Your task to perform on an android device: turn pop-ups on in chrome Image 0: 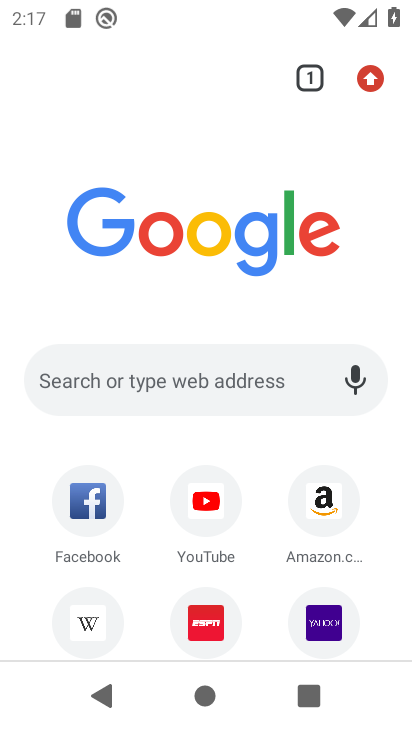
Step 0: press home button
Your task to perform on an android device: turn pop-ups on in chrome Image 1: 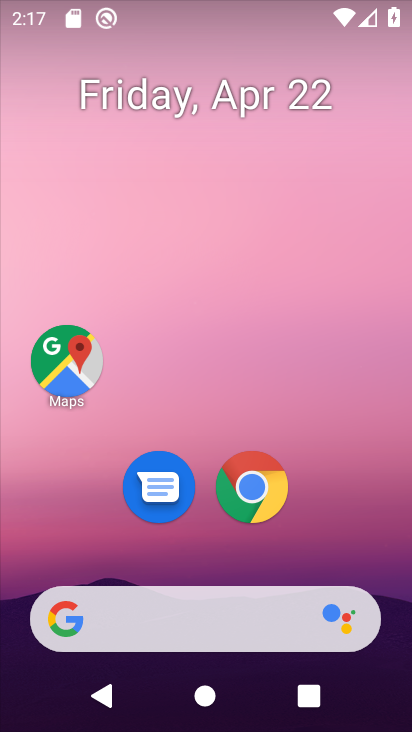
Step 1: click (279, 487)
Your task to perform on an android device: turn pop-ups on in chrome Image 2: 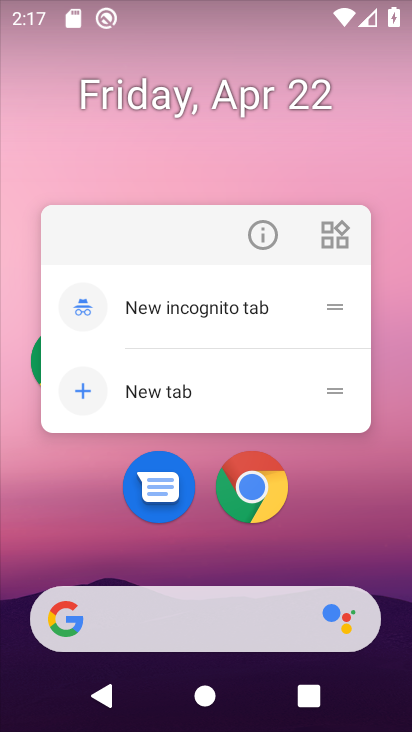
Step 2: click (264, 240)
Your task to perform on an android device: turn pop-ups on in chrome Image 3: 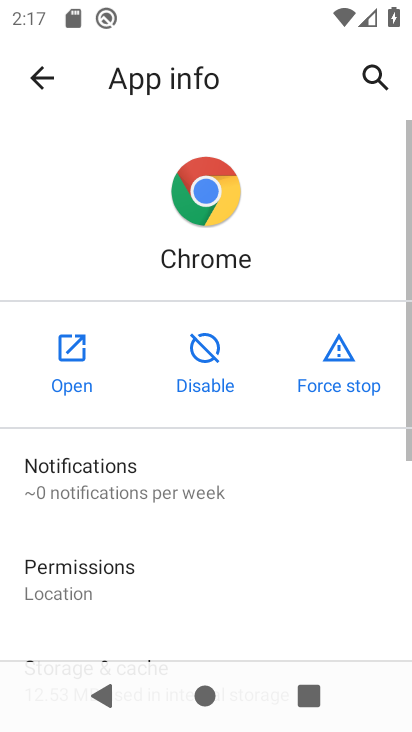
Step 3: click (87, 357)
Your task to perform on an android device: turn pop-ups on in chrome Image 4: 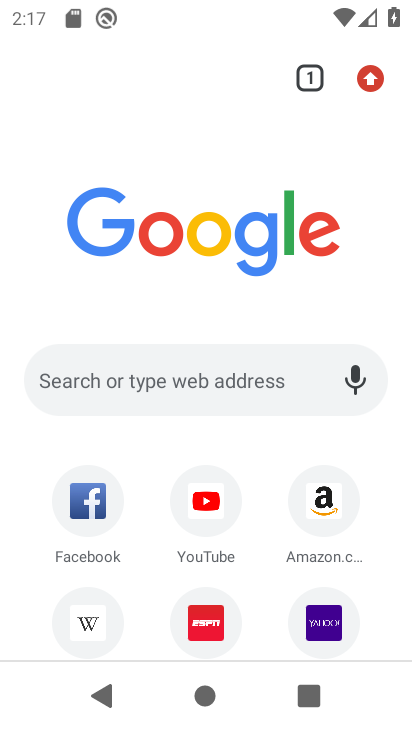
Step 4: click (389, 78)
Your task to perform on an android device: turn pop-ups on in chrome Image 5: 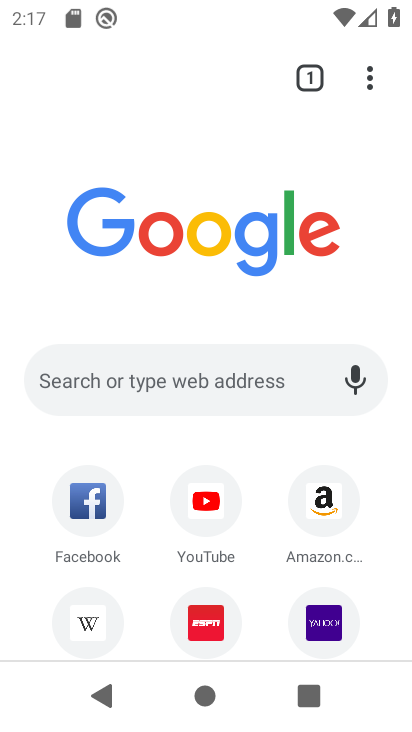
Step 5: click (366, 87)
Your task to perform on an android device: turn pop-ups on in chrome Image 6: 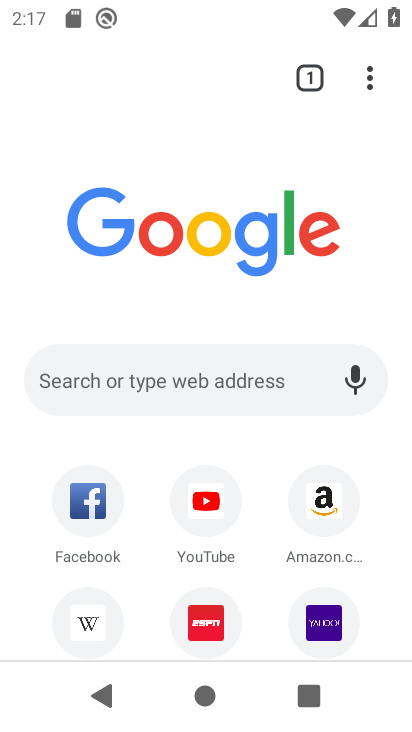
Step 6: click (361, 81)
Your task to perform on an android device: turn pop-ups on in chrome Image 7: 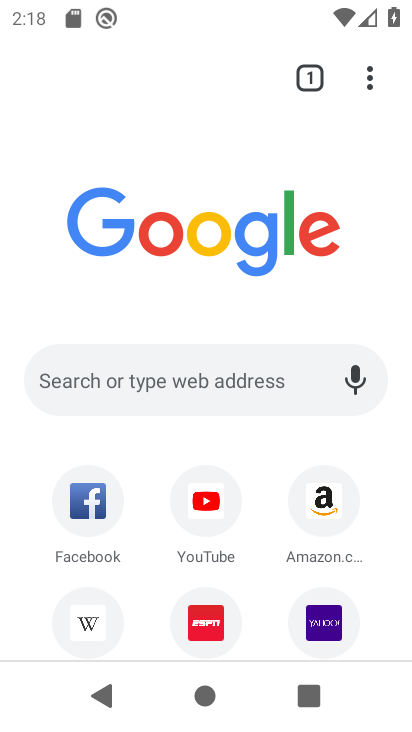
Step 7: click (359, 89)
Your task to perform on an android device: turn pop-ups on in chrome Image 8: 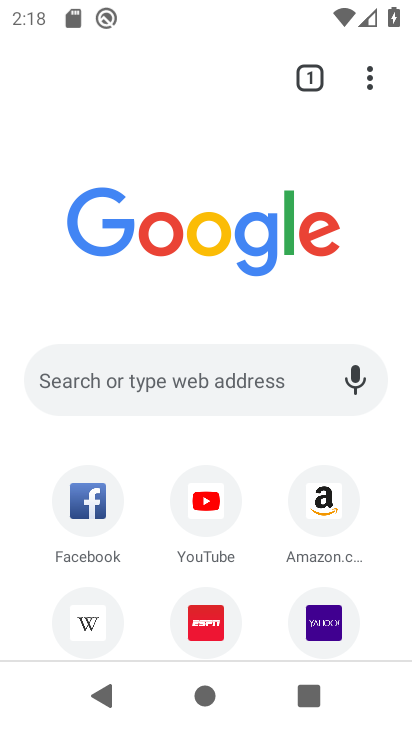
Step 8: click (373, 84)
Your task to perform on an android device: turn pop-ups on in chrome Image 9: 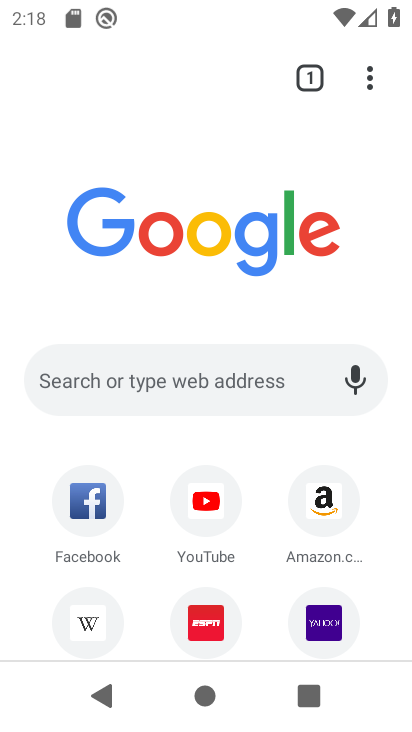
Step 9: click (313, 84)
Your task to perform on an android device: turn pop-ups on in chrome Image 10: 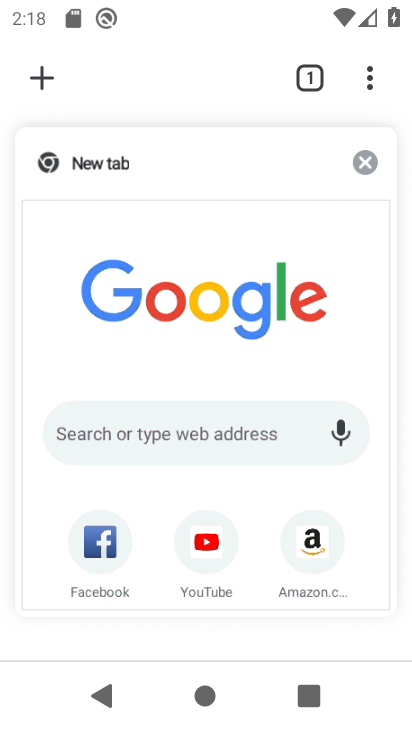
Step 10: click (362, 83)
Your task to perform on an android device: turn pop-ups on in chrome Image 11: 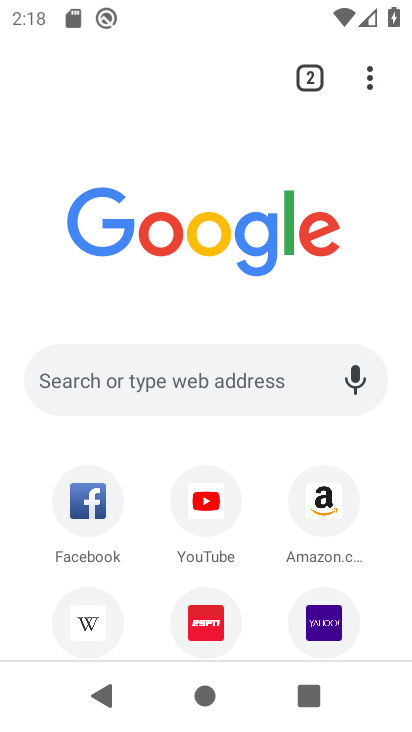
Step 11: click (376, 86)
Your task to perform on an android device: turn pop-ups on in chrome Image 12: 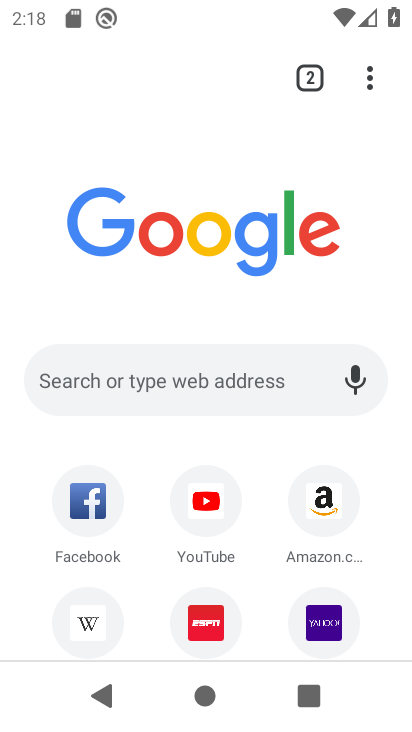
Step 12: click (374, 86)
Your task to perform on an android device: turn pop-ups on in chrome Image 13: 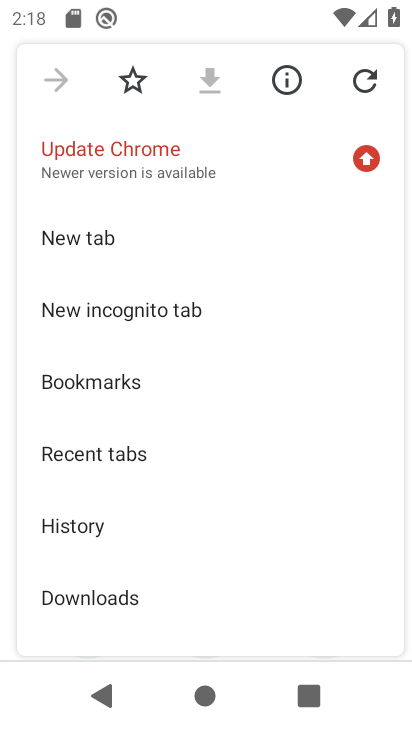
Step 13: drag from (149, 507) to (134, 227)
Your task to perform on an android device: turn pop-ups on in chrome Image 14: 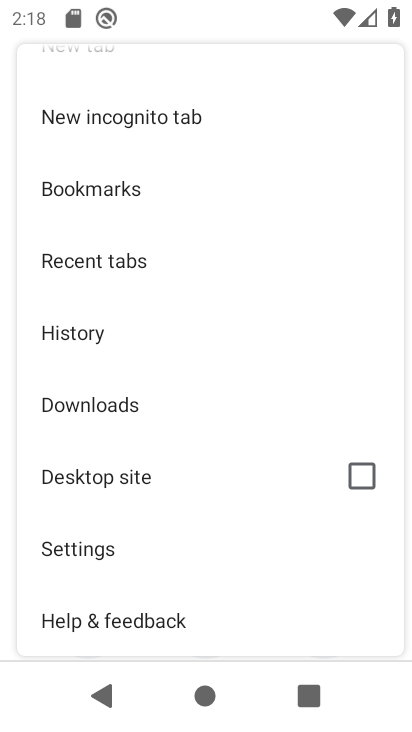
Step 14: click (130, 544)
Your task to perform on an android device: turn pop-ups on in chrome Image 15: 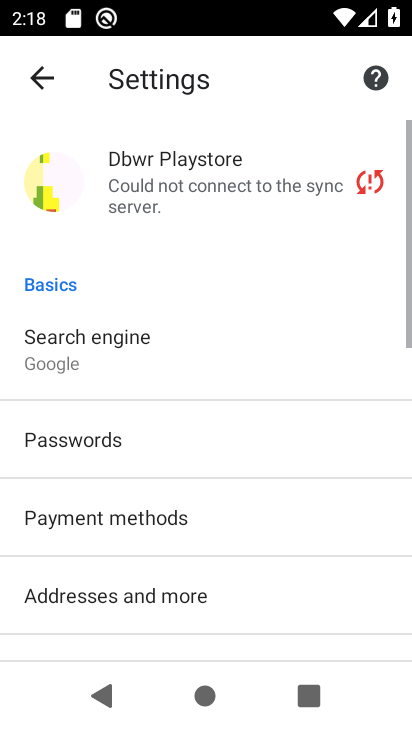
Step 15: drag from (165, 546) to (178, 235)
Your task to perform on an android device: turn pop-ups on in chrome Image 16: 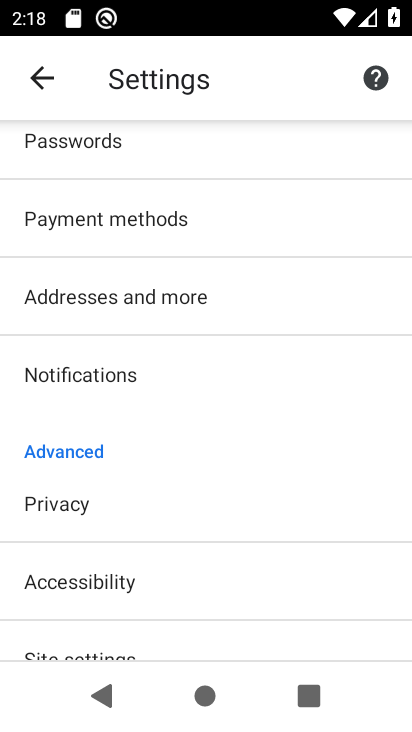
Step 16: drag from (202, 547) to (200, 307)
Your task to perform on an android device: turn pop-ups on in chrome Image 17: 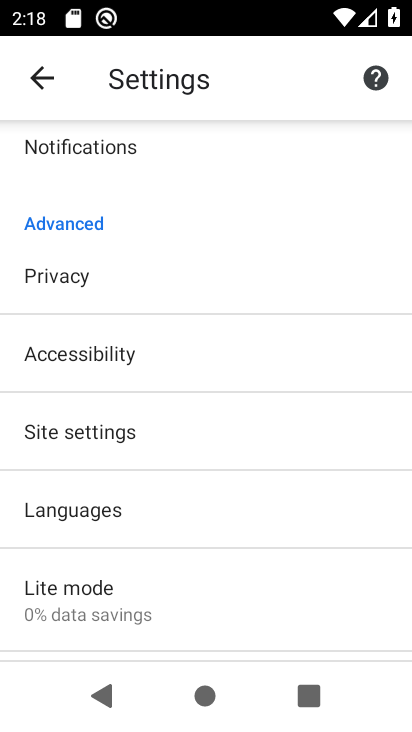
Step 17: click (150, 422)
Your task to perform on an android device: turn pop-ups on in chrome Image 18: 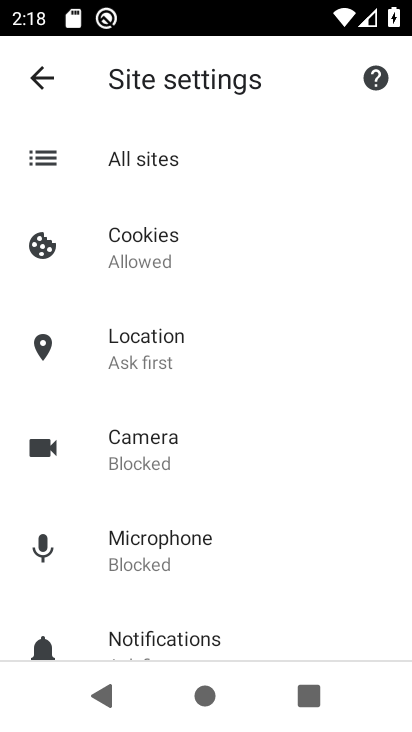
Step 18: drag from (173, 518) to (199, 217)
Your task to perform on an android device: turn pop-ups on in chrome Image 19: 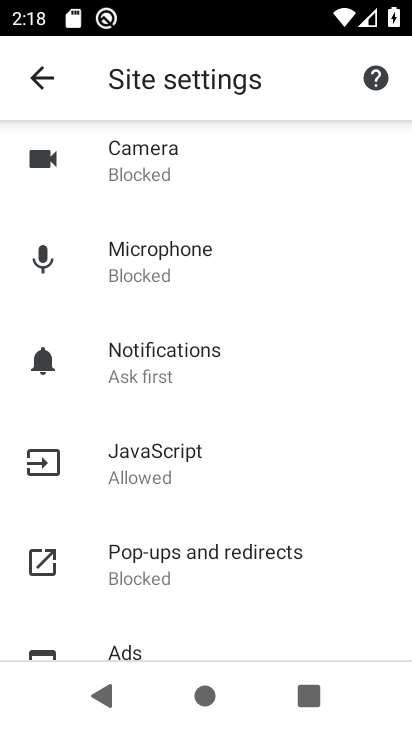
Step 19: click (207, 552)
Your task to perform on an android device: turn pop-ups on in chrome Image 20: 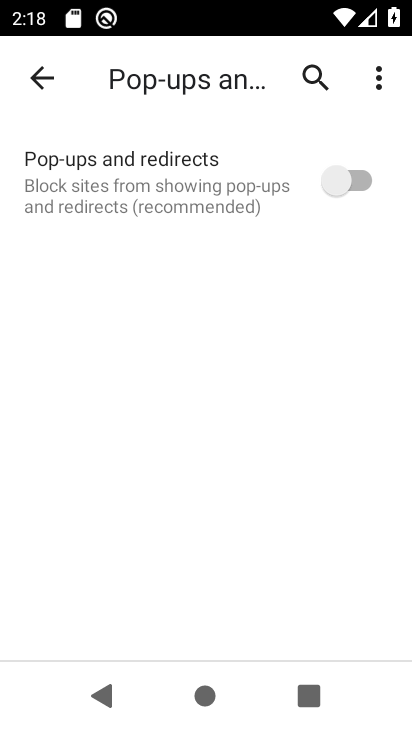
Step 20: click (336, 197)
Your task to perform on an android device: turn pop-ups on in chrome Image 21: 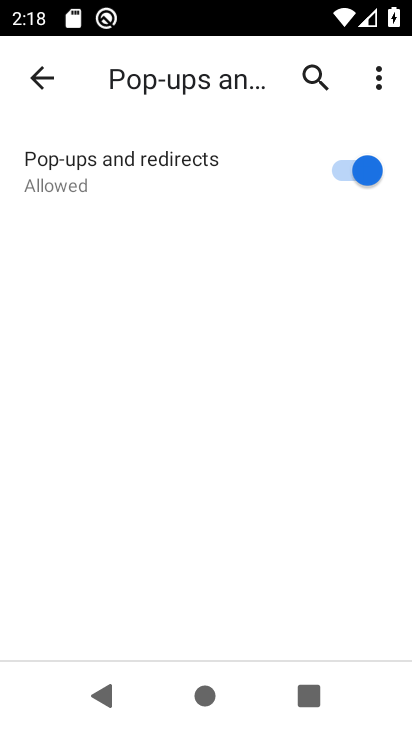
Step 21: task complete